Your task to perform on an android device: Open the calendar and show me this week's events? Image 0: 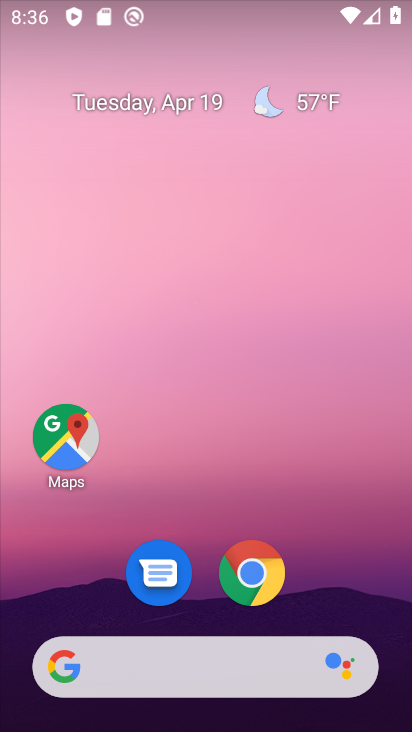
Step 0: drag from (358, 220) to (352, 48)
Your task to perform on an android device: Open the calendar and show me this week's events? Image 1: 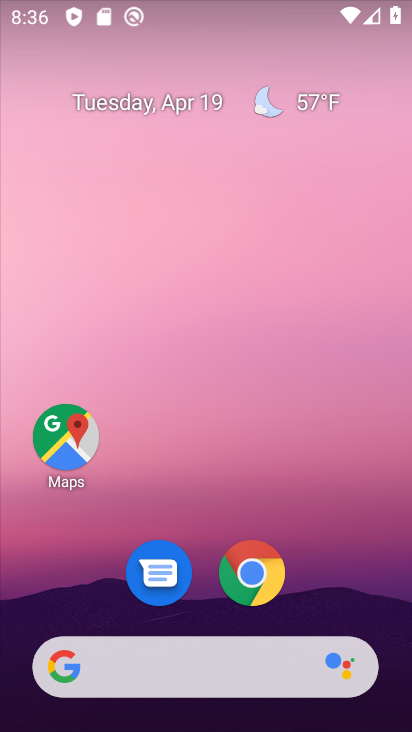
Step 1: drag from (328, 579) to (302, 89)
Your task to perform on an android device: Open the calendar and show me this week's events? Image 2: 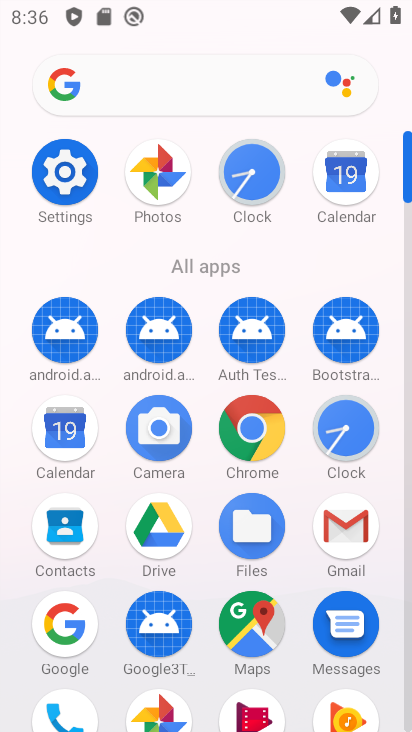
Step 2: click (344, 189)
Your task to perform on an android device: Open the calendar and show me this week's events? Image 3: 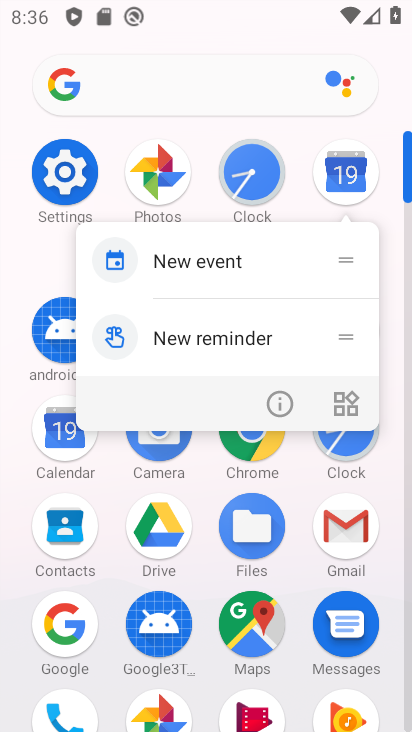
Step 3: click (331, 181)
Your task to perform on an android device: Open the calendar and show me this week's events? Image 4: 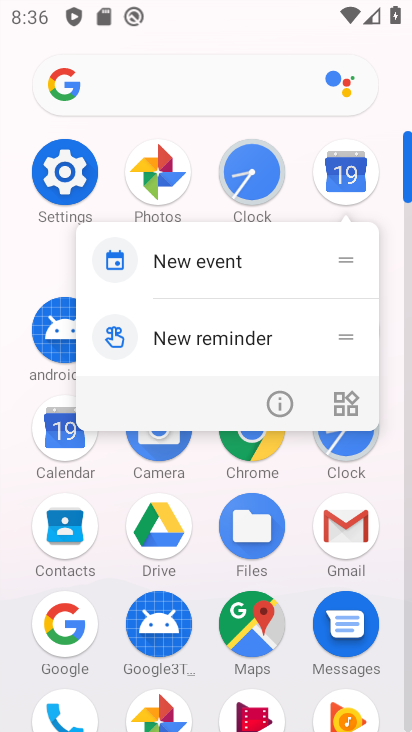
Step 4: click (344, 176)
Your task to perform on an android device: Open the calendar and show me this week's events? Image 5: 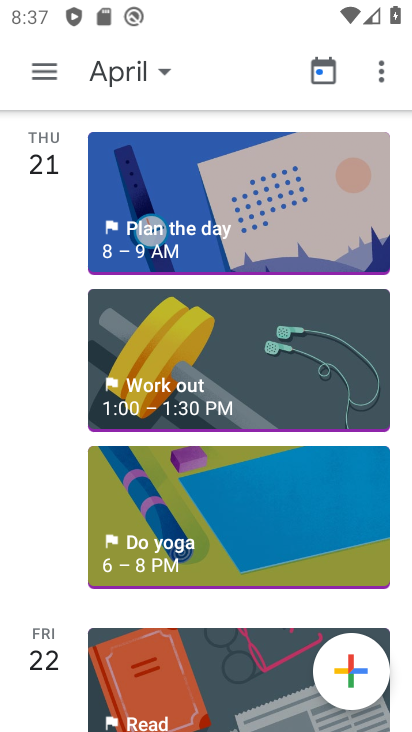
Step 5: click (36, 68)
Your task to perform on an android device: Open the calendar and show me this week's events? Image 6: 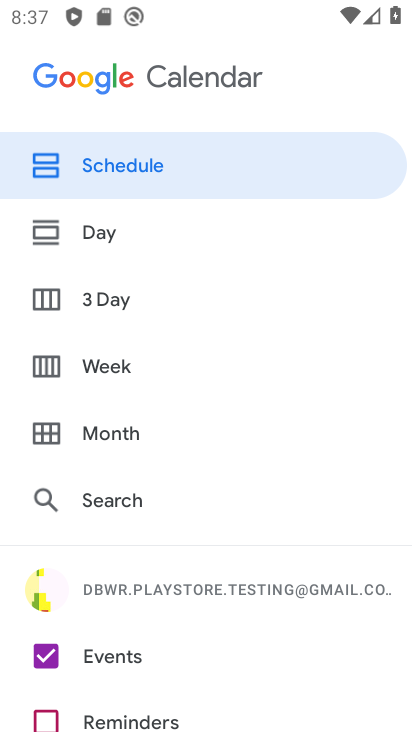
Step 6: click (56, 151)
Your task to perform on an android device: Open the calendar and show me this week's events? Image 7: 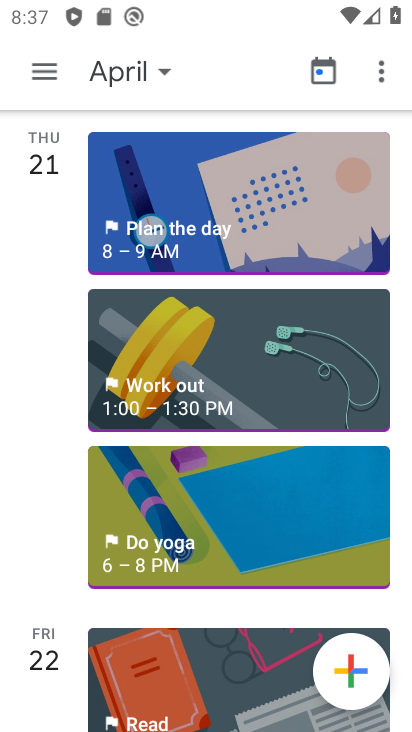
Step 7: click (52, 63)
Your task to perform on an android device: Open the calendar and show me this week's events? Image 8: 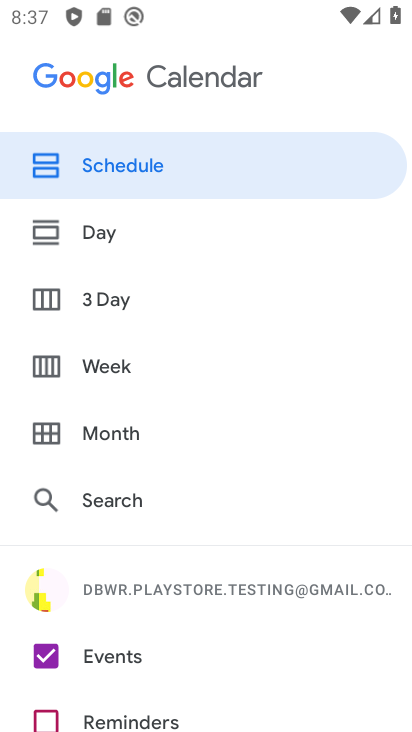
Step 8: click (90, 360)
Your task to perform on an android device: Open the calendar and show me this week's events? Image 9: 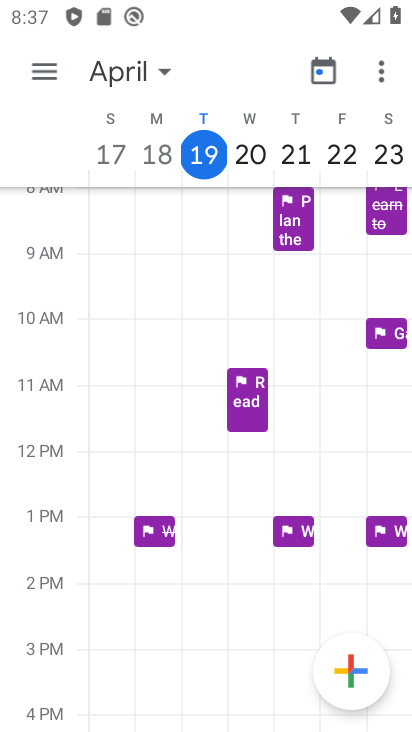
Step 9: task complete